Your task to perform on an android device: toggle wifi Image 0: 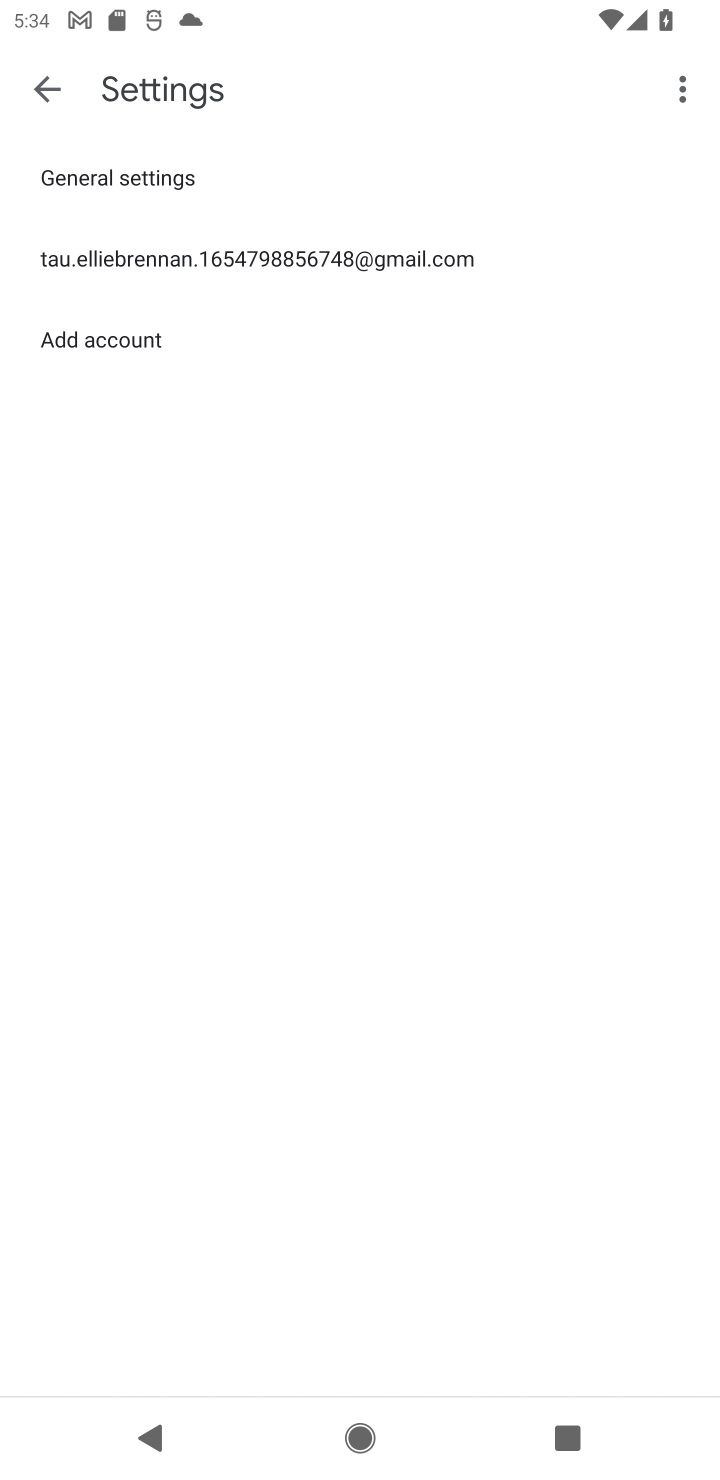
Step 0: press home button
Your task to perform on an android device: toggle wifi Image 1: 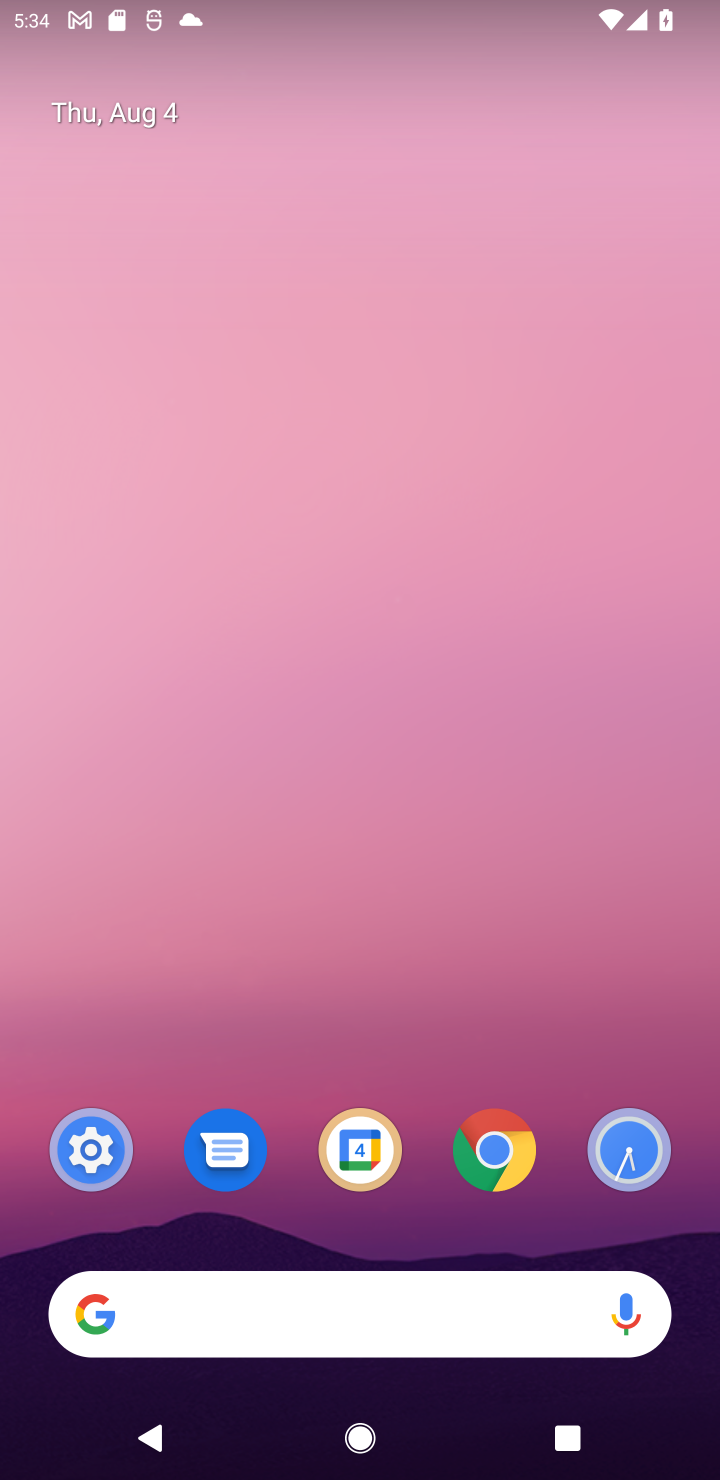
Step 1: drag from (291, 1190) to (520, 47)
Your task to perform on an android device: toggle wifi Image 2: 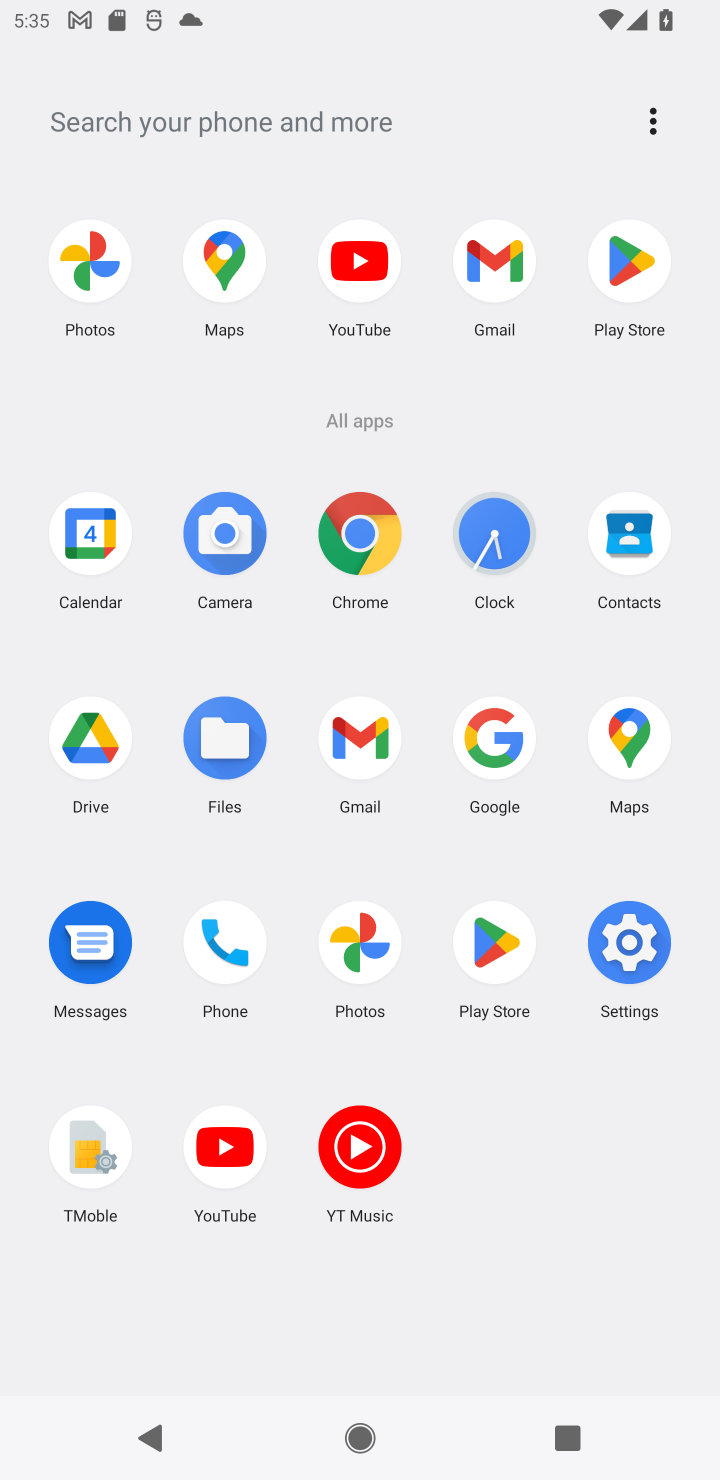
Step 2: click (631, 943)
Your task to perform on an android device: toggle wifi Image 3: 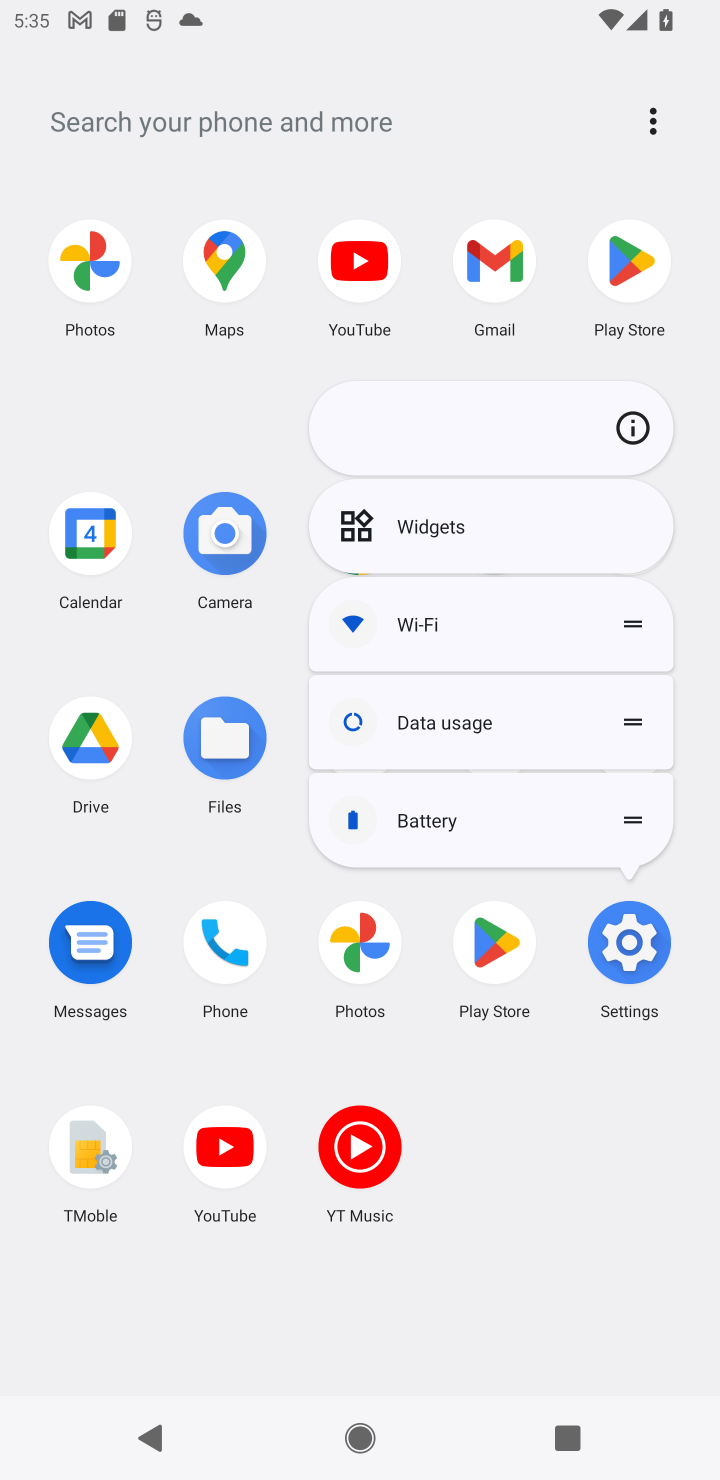
Step 3: click (656, 932)
Your task to perform on an android device: toggle wifi Image 4: 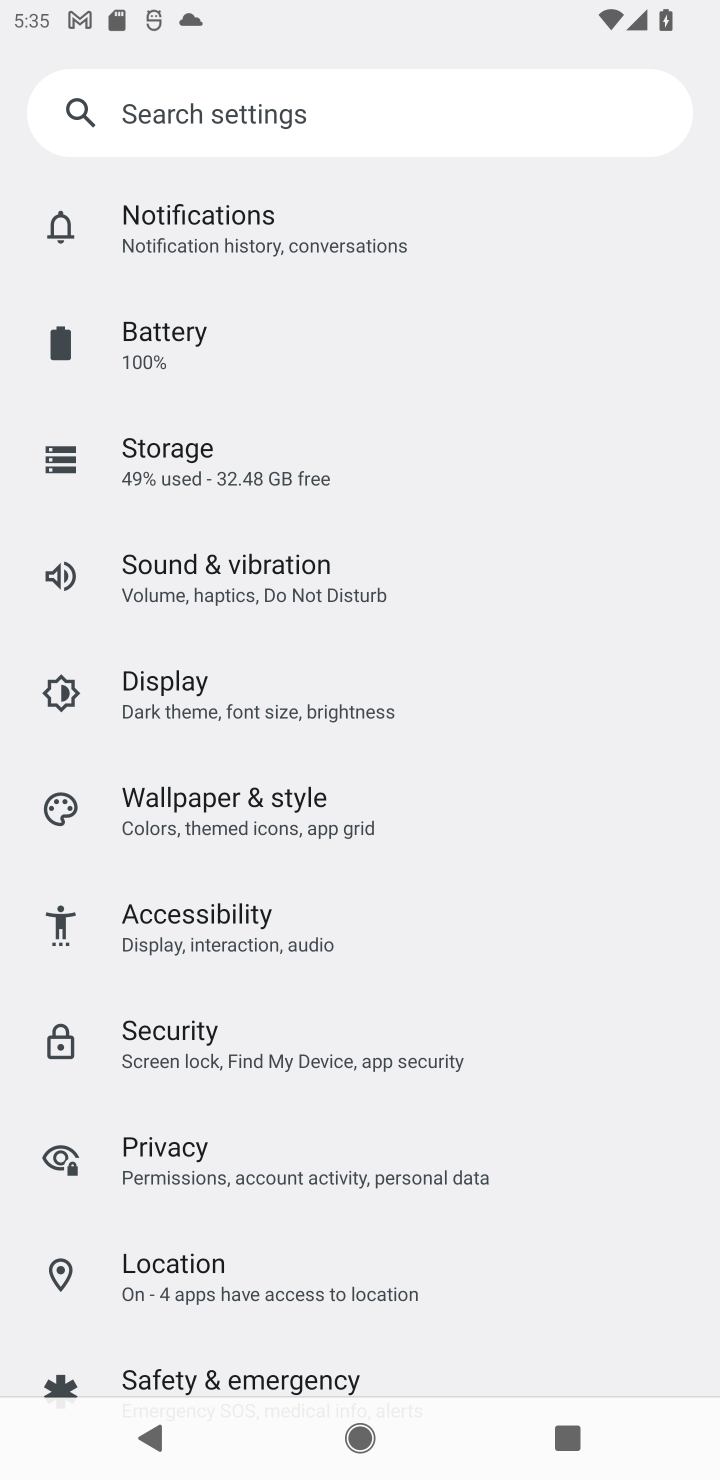
Step 4: drag from (227, 293) to (266, 1259)
Your task to perform on an android device: toggle wifi Image 5: 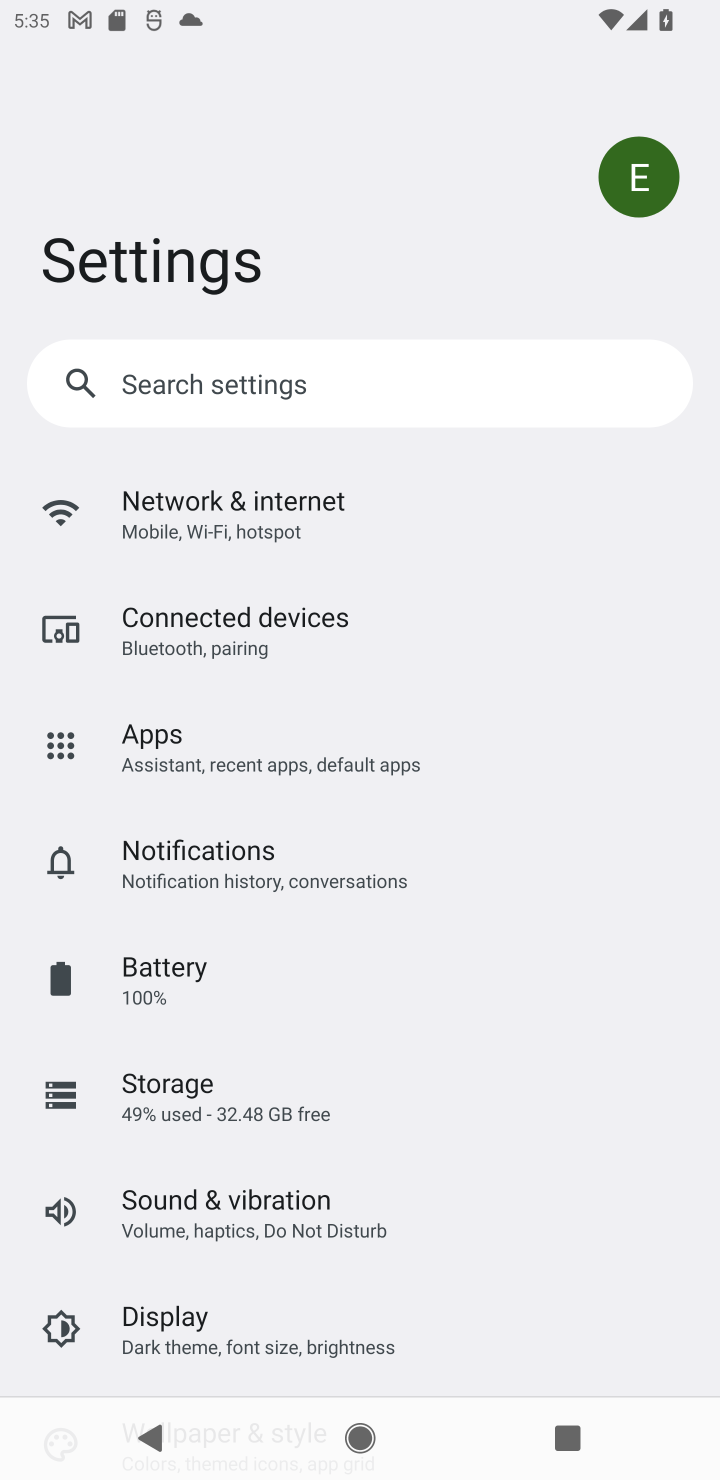
Step 5: click (233, 527)
Your task to perform on an android device: toggle wifi Image 6: 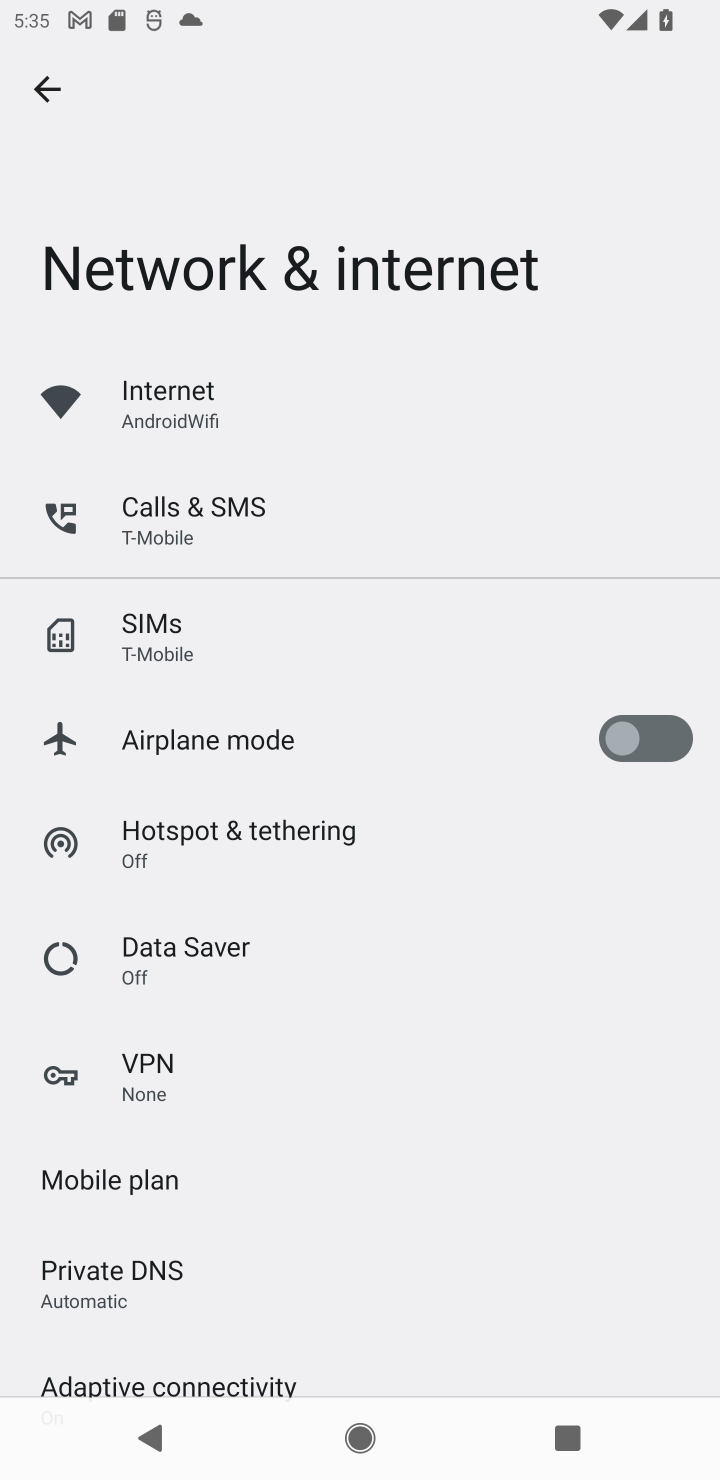
Step 6: click (215, 392)
Your task to perform on an android device: toggle wifi Image 7: 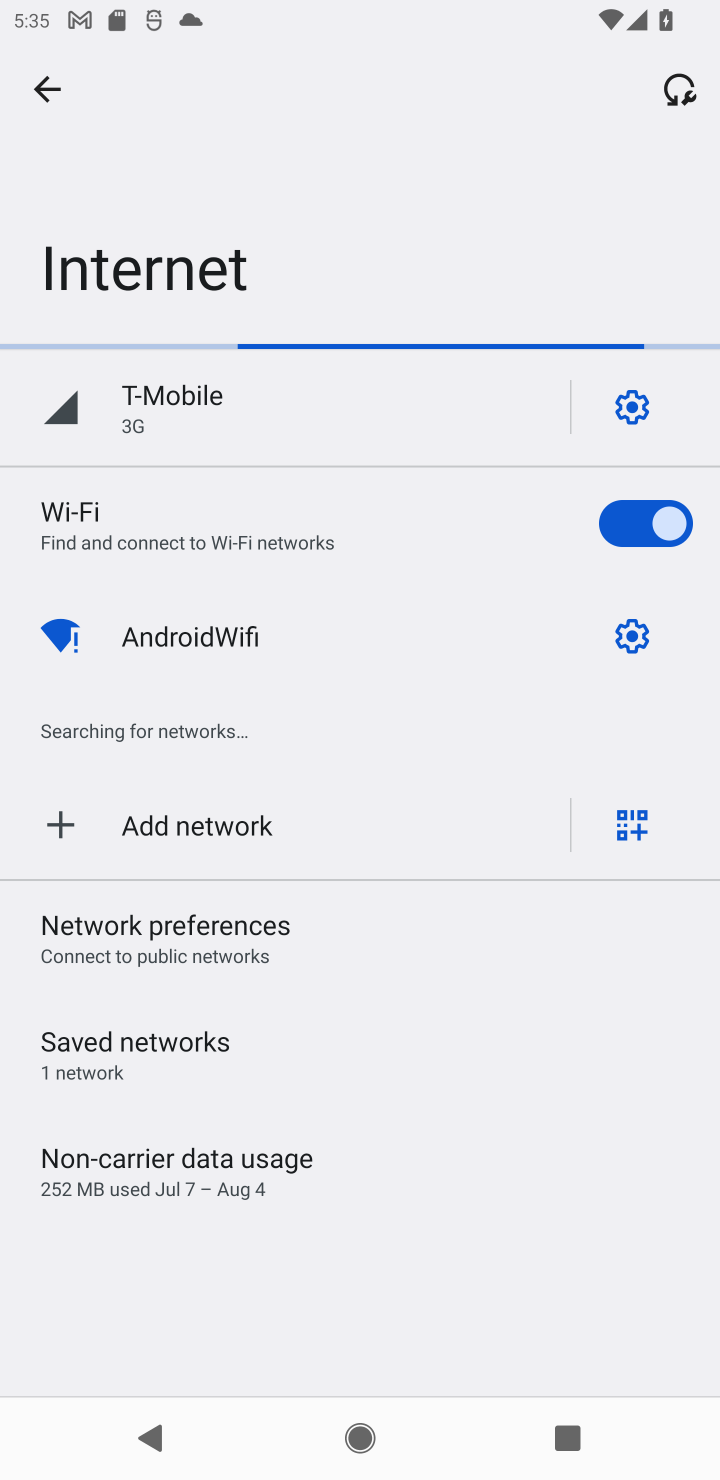
Step 7: task complete